Your task to perform on an android device: visit the assistant section in the google photos Image 0: 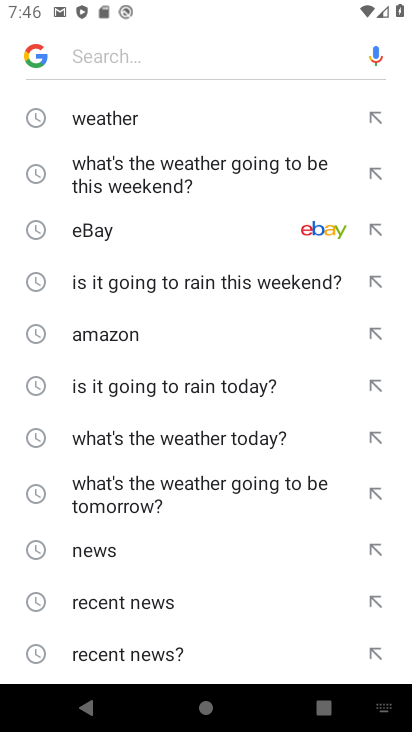
Step 0: press home button
Your task to perform on an android device: visit the assistant section in the google photos Image 1: 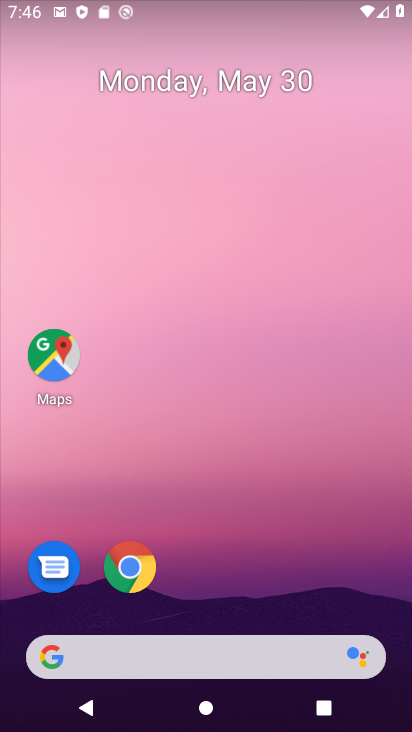
Step 1: click (58, 368)
Your task to perform on an android device: visit the assistant section in the google photos Image 2: 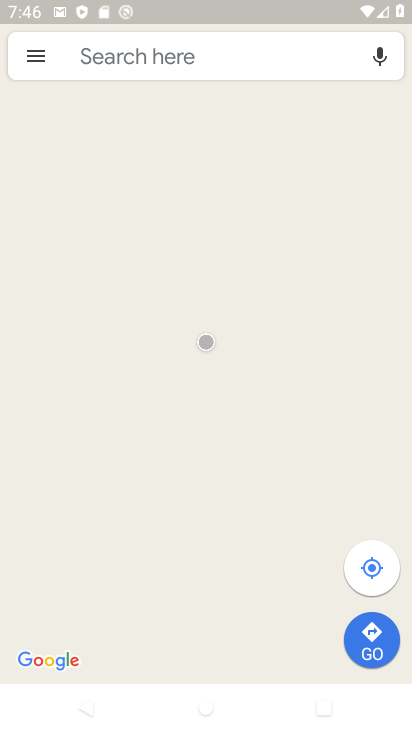
Step 2: task complete